Your task to perform on an android device: Open Google Image 0: 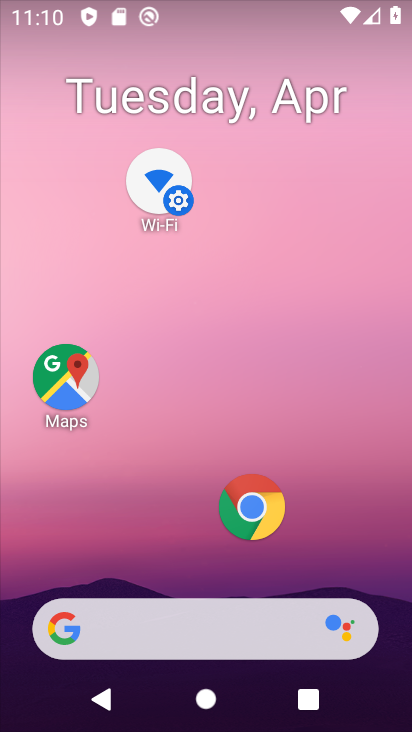
Step 0: drag from (70, 457) to (232, 168)
Your task to perform on an android device: Open Google Image 1: 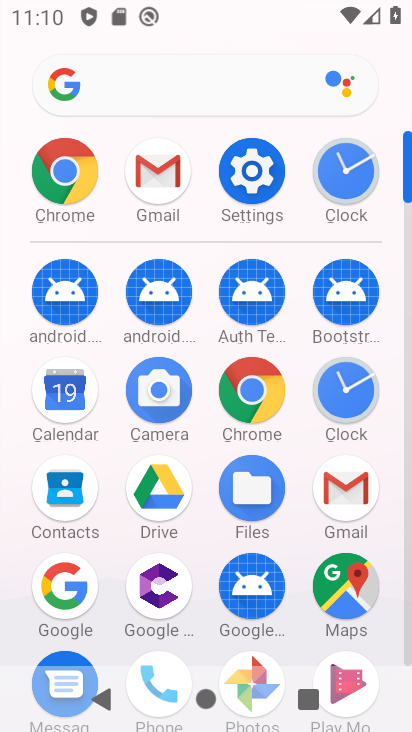
Step 1: click (58, 580)
Your task to perform on an android device: Open Google Image 2: 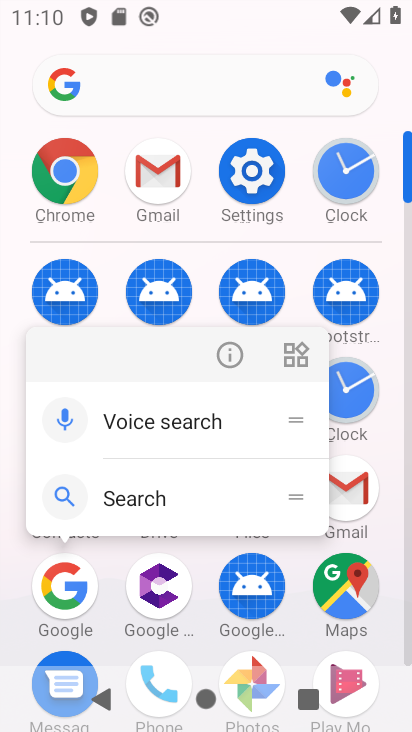
Step 2: click (59, 578)
Your task to perform on an android device: Open Google Image 3: 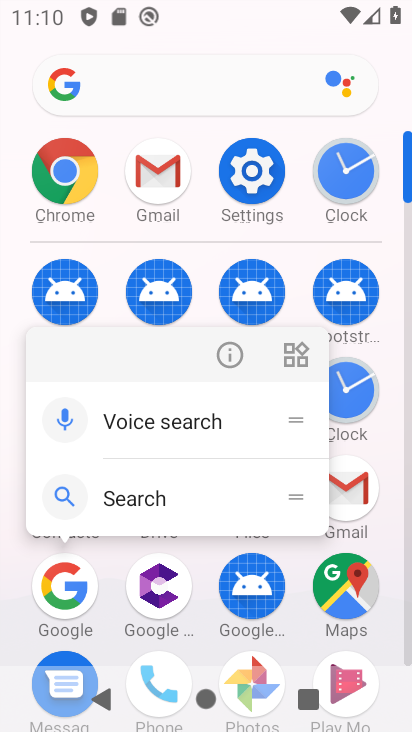
Step 3: click (60, 575)
Your task to perform on an android device: Open Google Image 4: 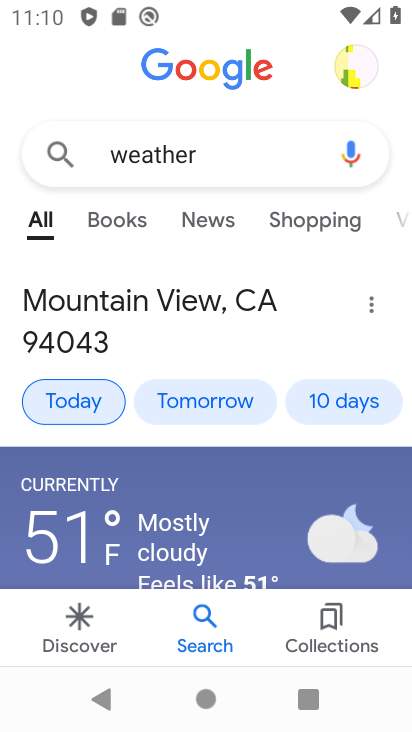
Step 4: click (217, 57)
Your task to perform on an android device: Open Google Image 5: 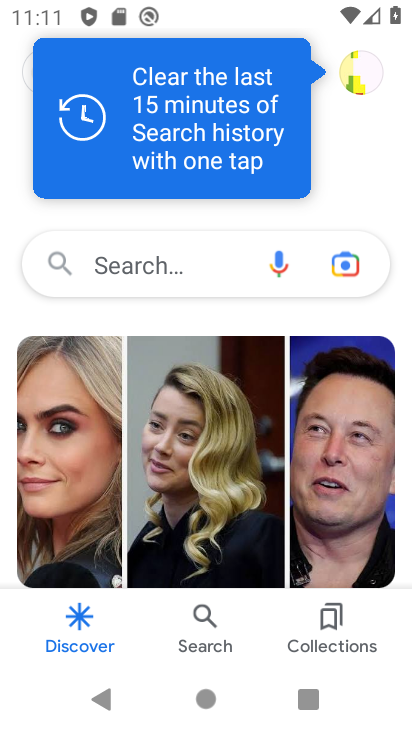
Step 5: task complete